Your task to perform on an android device: uninstall "Microsoft Outlook" Image 0: 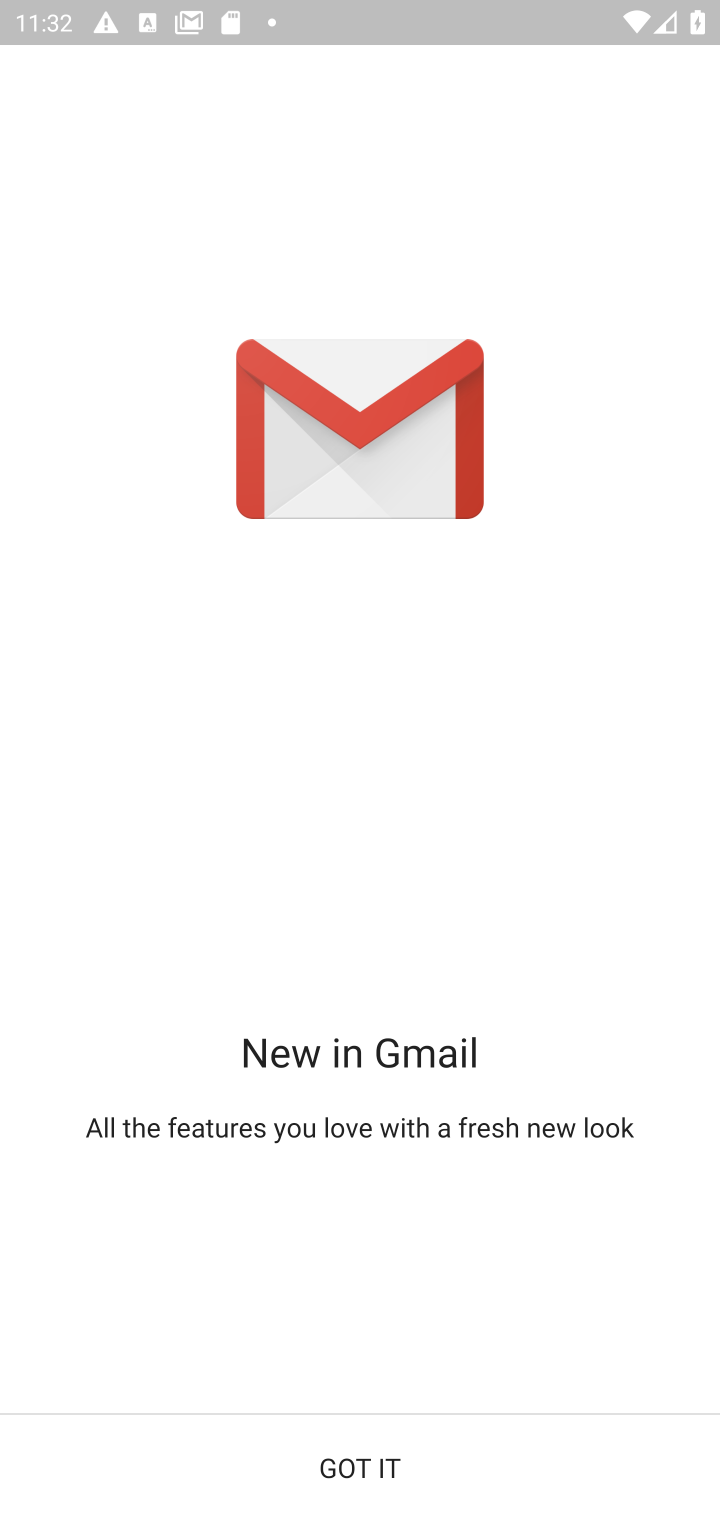
Step 0: press home button
Your task to perform on an android device: uninstall "Microsoft Outlook" Image 1: 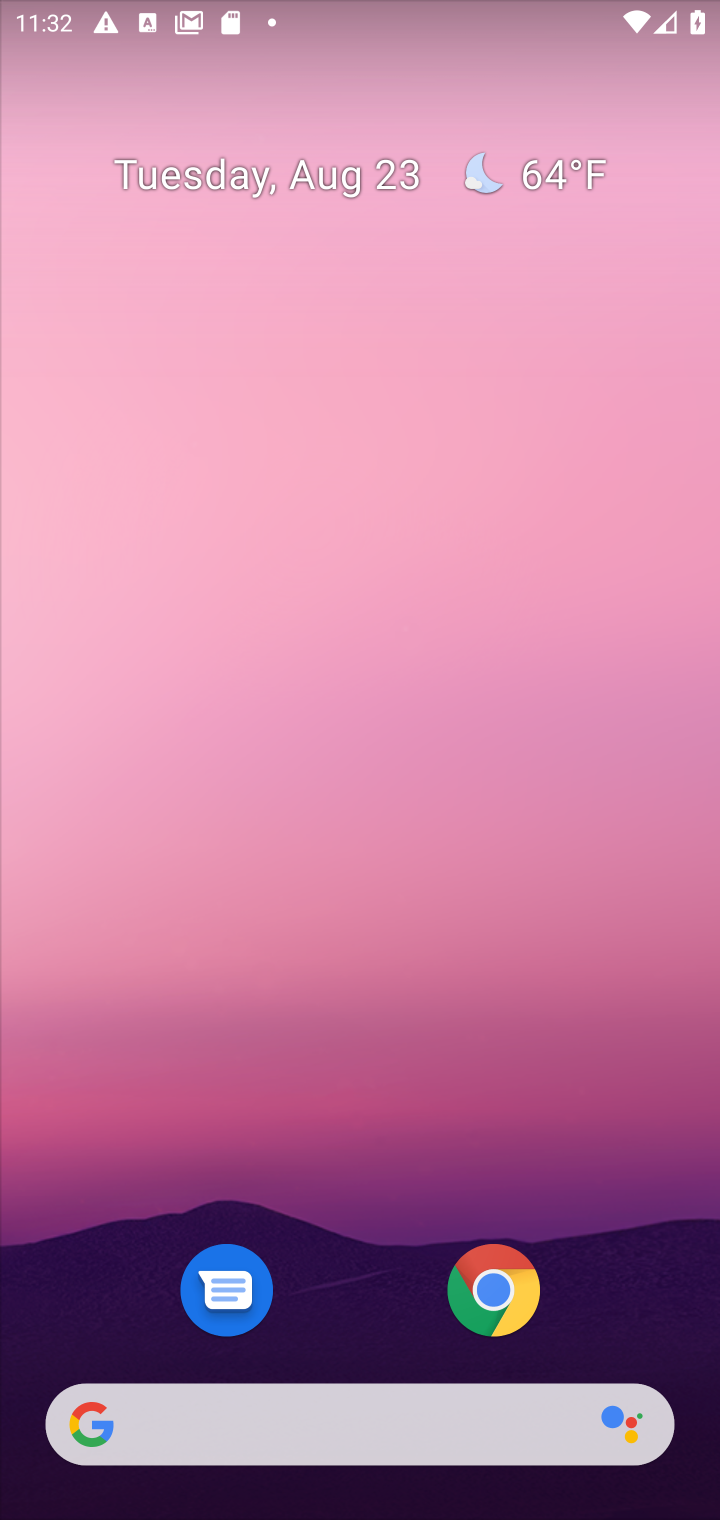
Step 1: drag from (335, 1160) to (334, 180)
Your task to perform on an android device: uninstall "Microsoft Outlook" Image 2: 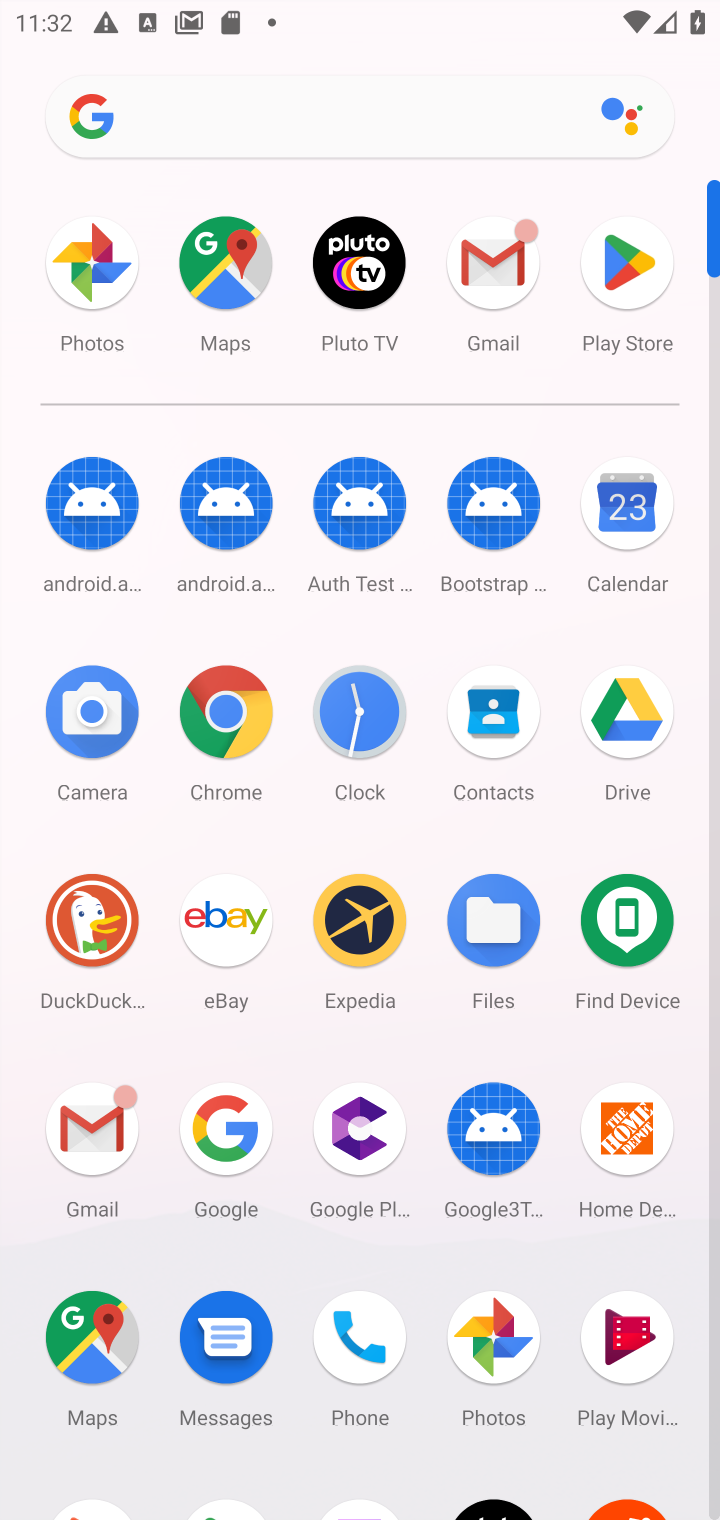
Step 2: click (619, 270)
Your task to perform on an android device: uninstall "Microsoft Outlook" Image 3: 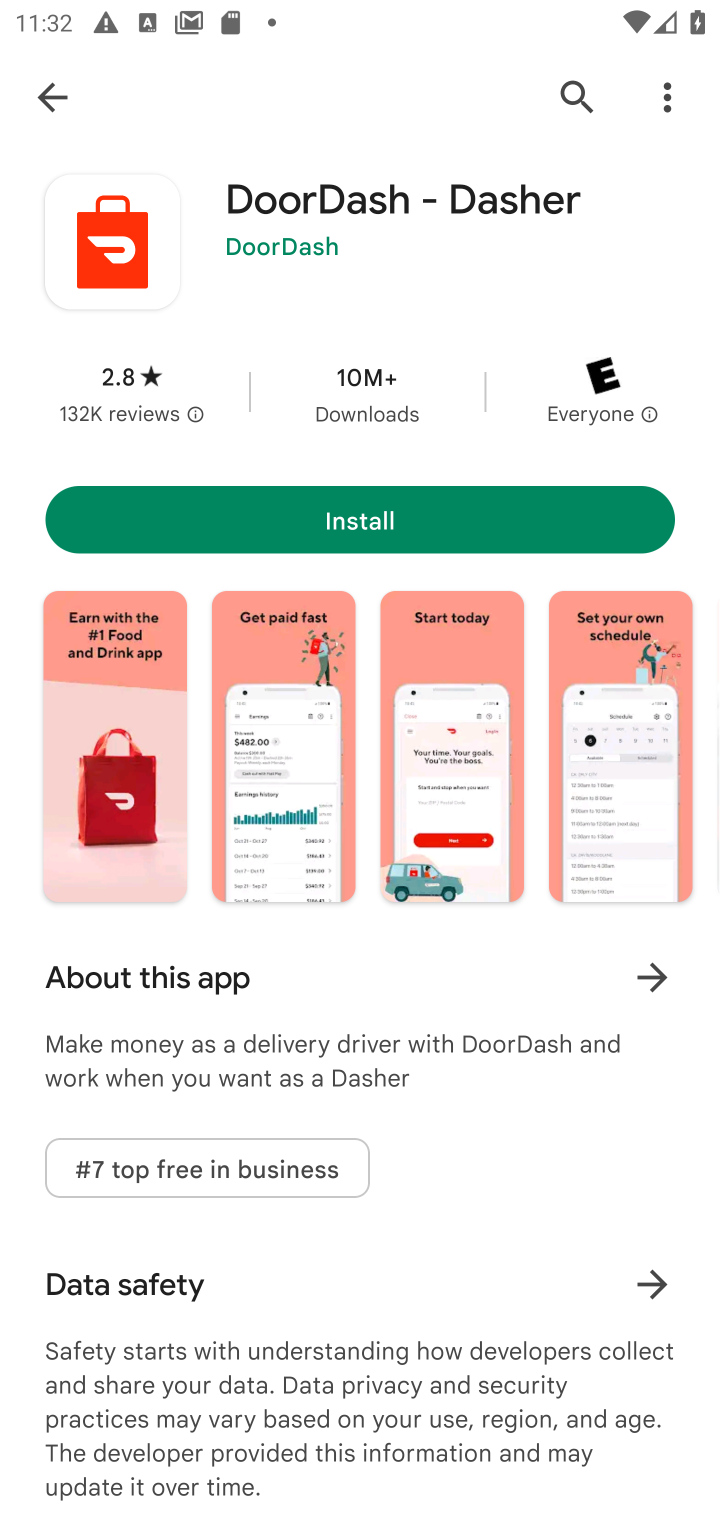
Step 3: click (567, 90)
Your task to perform on an android device: uninstall "Microsoft Outlook" Image 4: 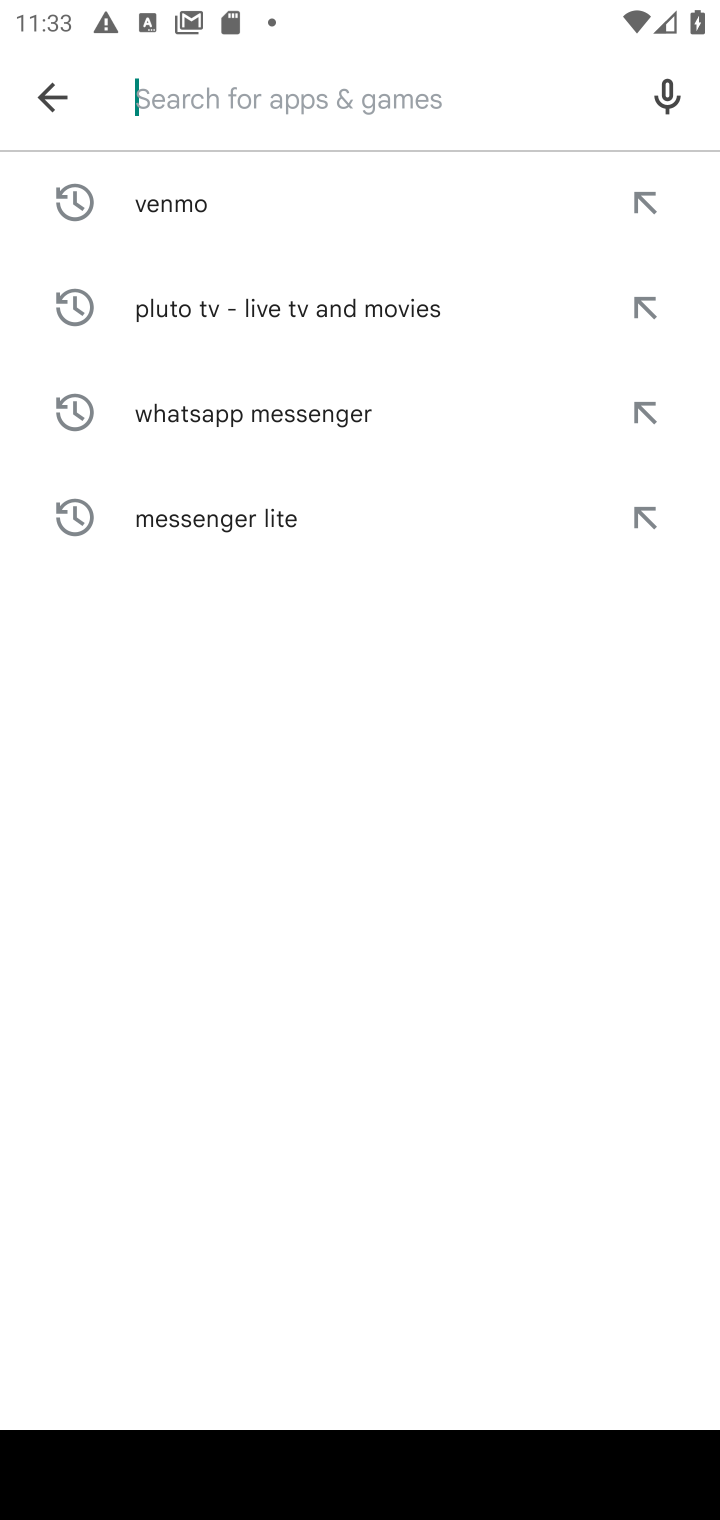
Step 4: type "Microsoft Outlook"
Your task to perform on an android device: uninstall "Microsoft Outlook" Image 5: 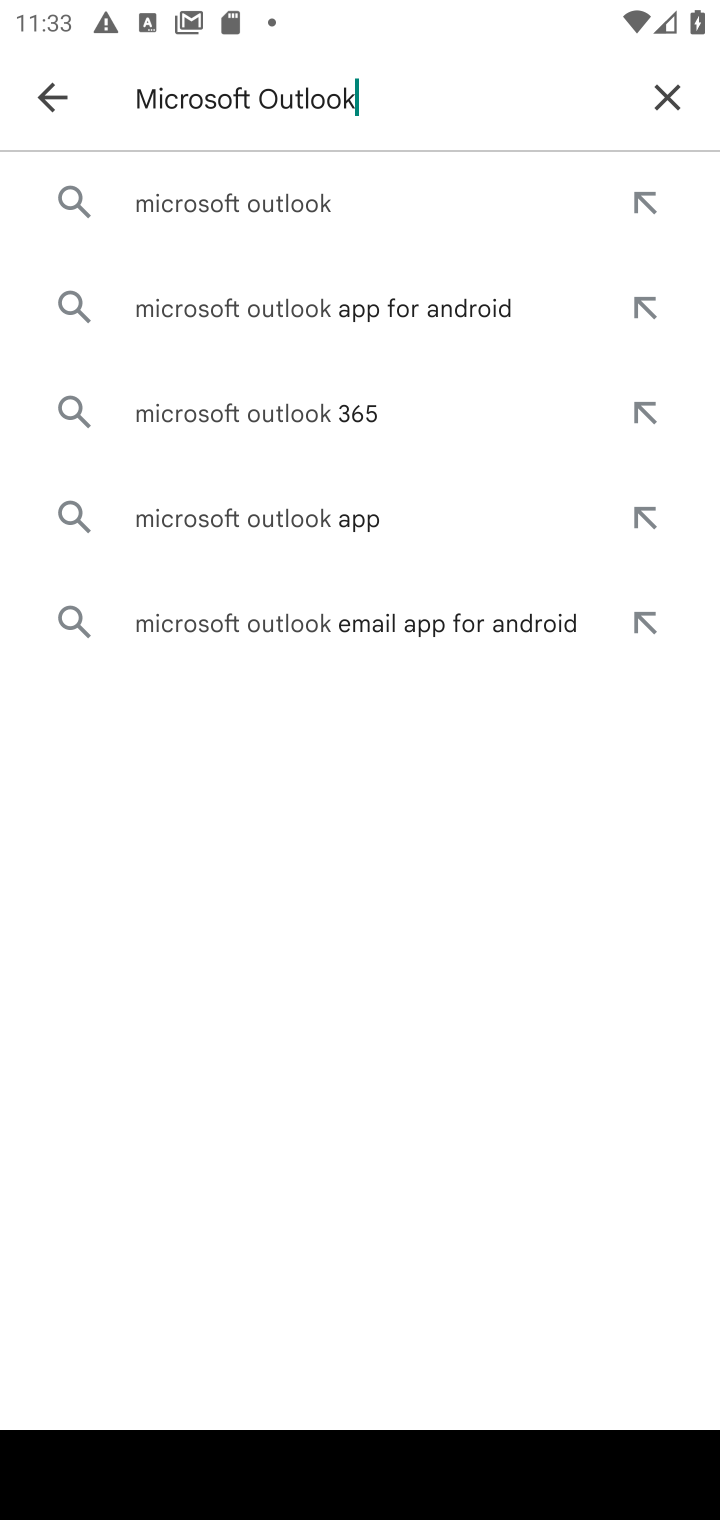
Step 5: click (252, 204)
Your task to perform on an android device: uninstall "Microsoft Outlook" Image 6: 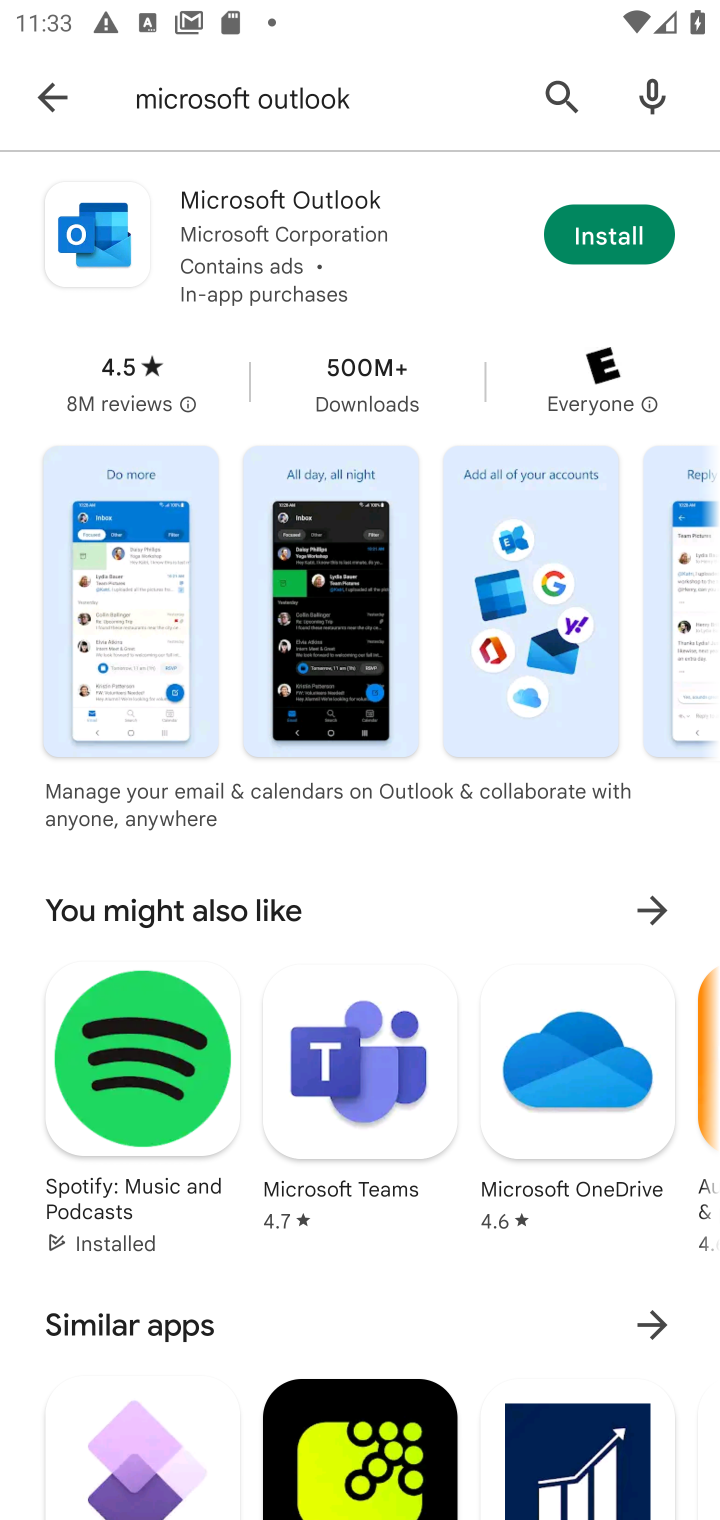
Step 6: click (312, 226)
Your task to perform on an android device: uninstall "Microsoft Outlook" Image 7: 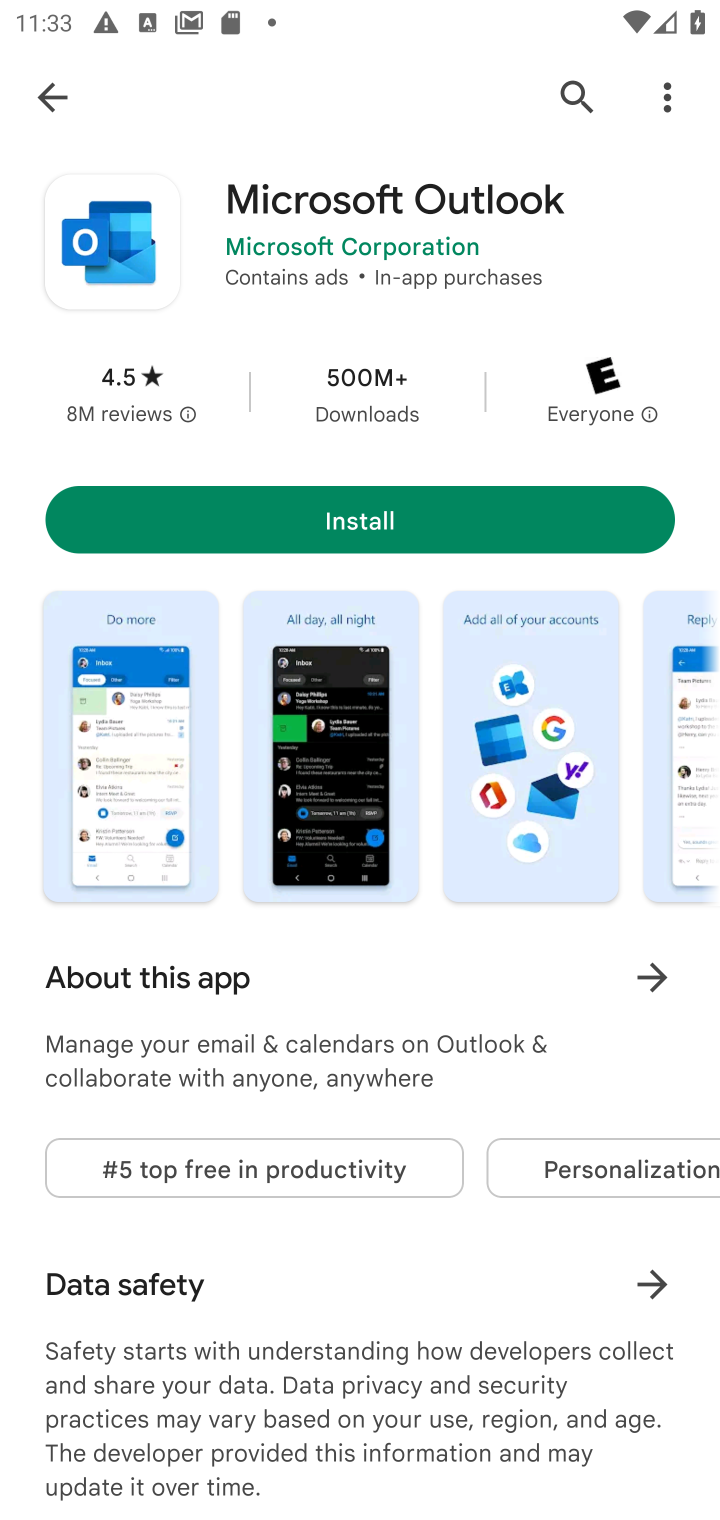
Step 7: task complete